Your task to perform on an android device: Do I have any events today? Image 0: 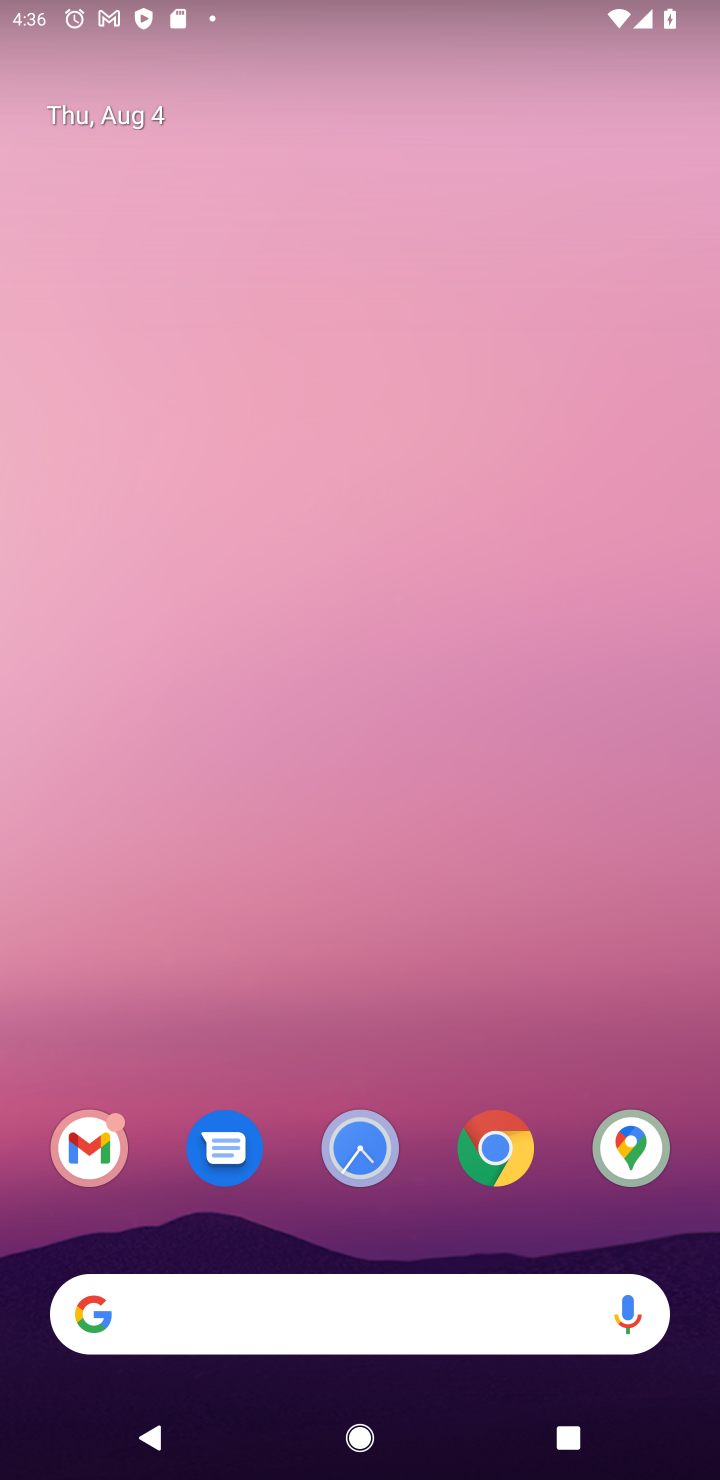
Step 0: drag from (563, 1214) to (547, 270)
Your task to perform on an android device: Do I have any events today? Image 1: 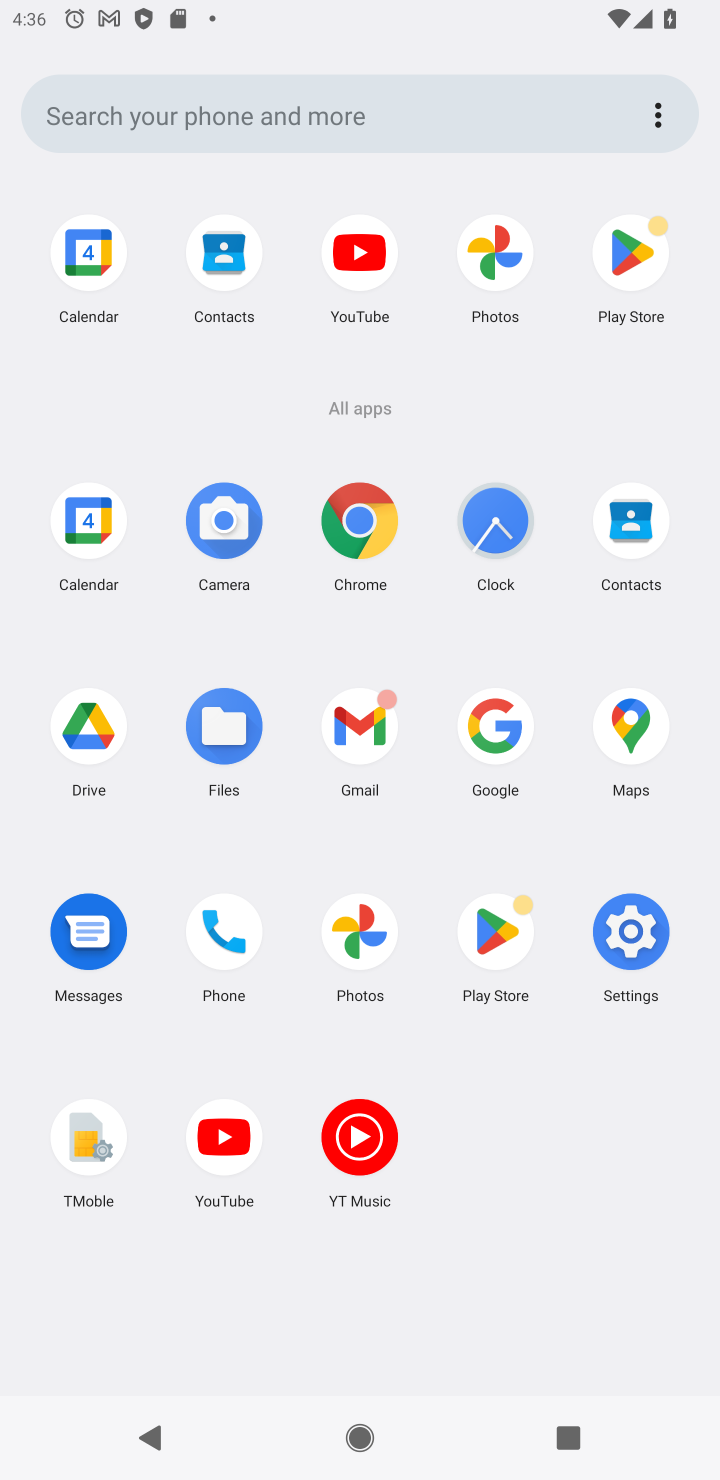
Step 1: click (86, 516)
Your task to perform on an android device: Do I have any events today? Image 2: 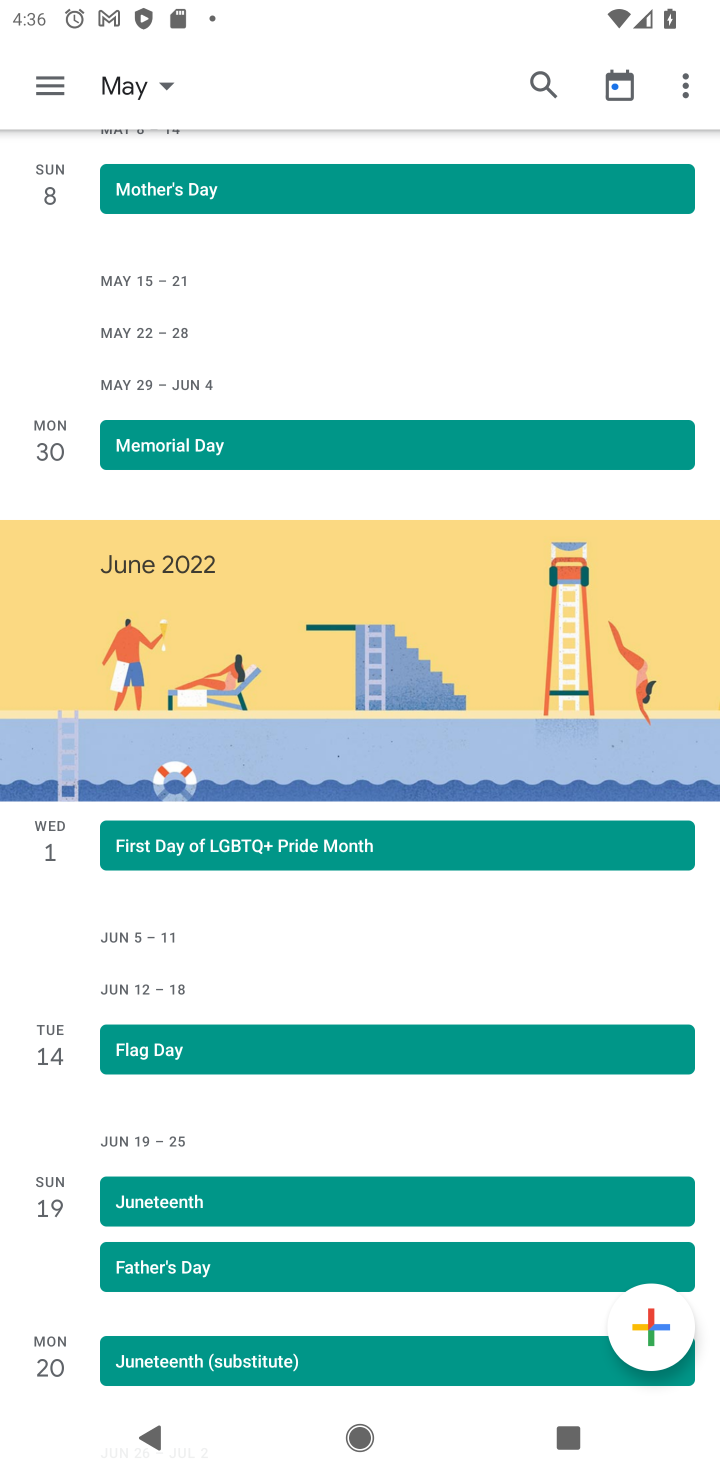
Step 2: click (48, 90)
Your task to perform on an android device: Do I have any events today? Image 3: 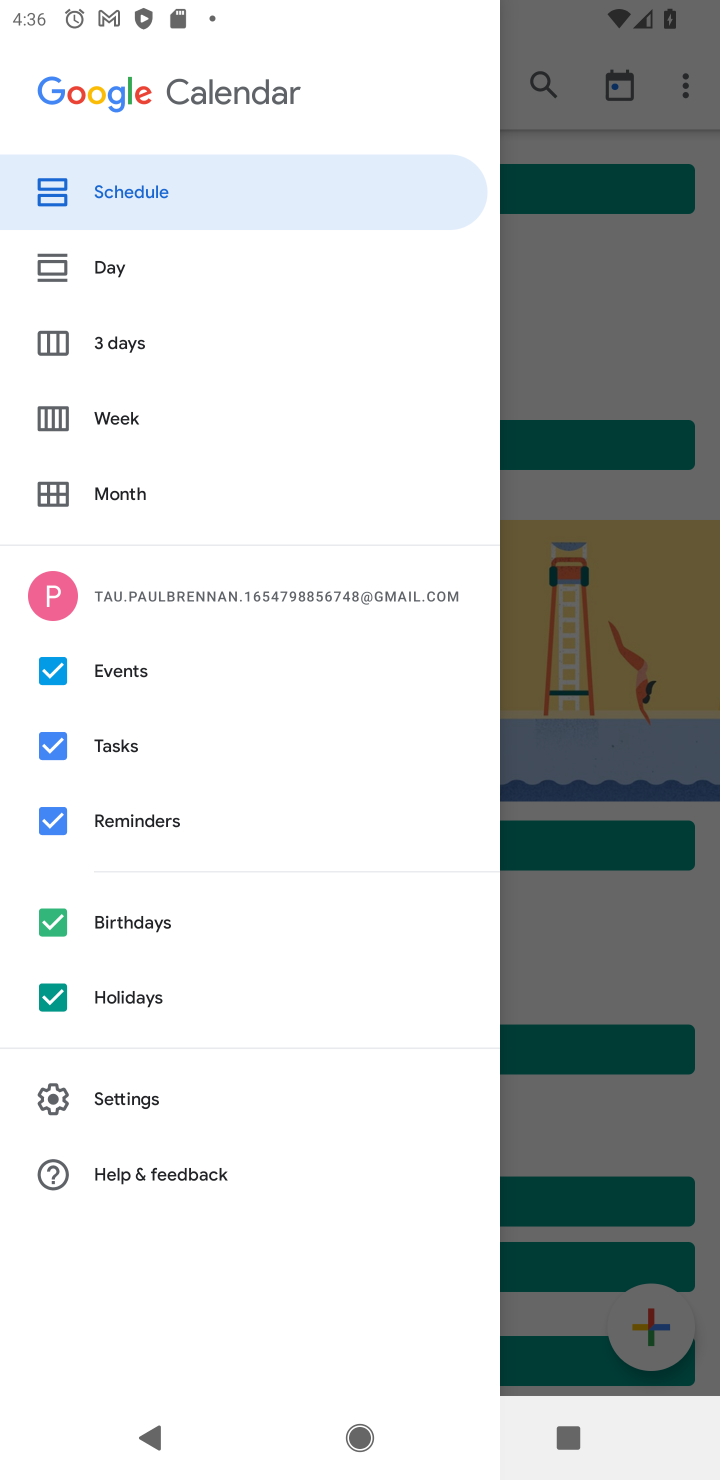
Step 3: click (104, 260)
Your task to perform on an android device: Do I have any events today? Image 4: 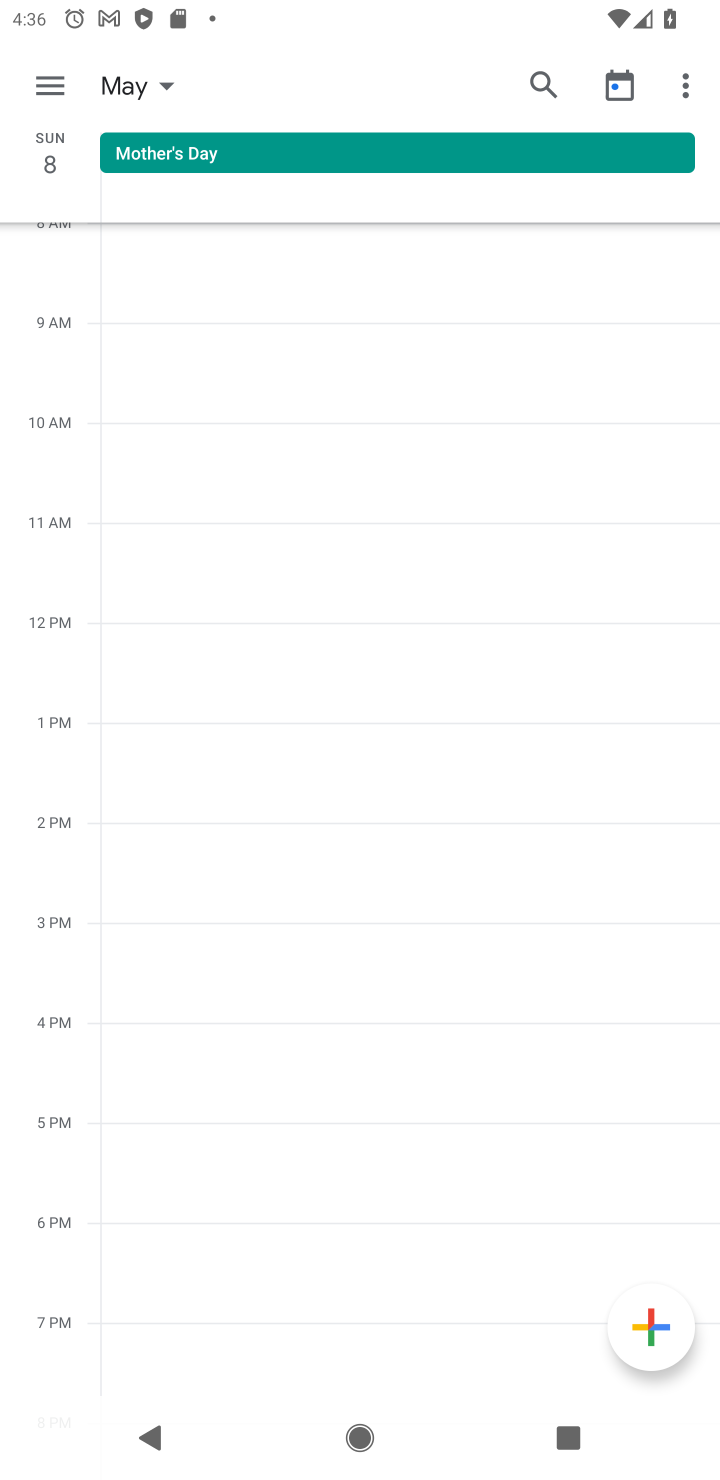
Step 4: click (169, 87)
Your task to perform on an android device: Do I have any events today? Image 5: 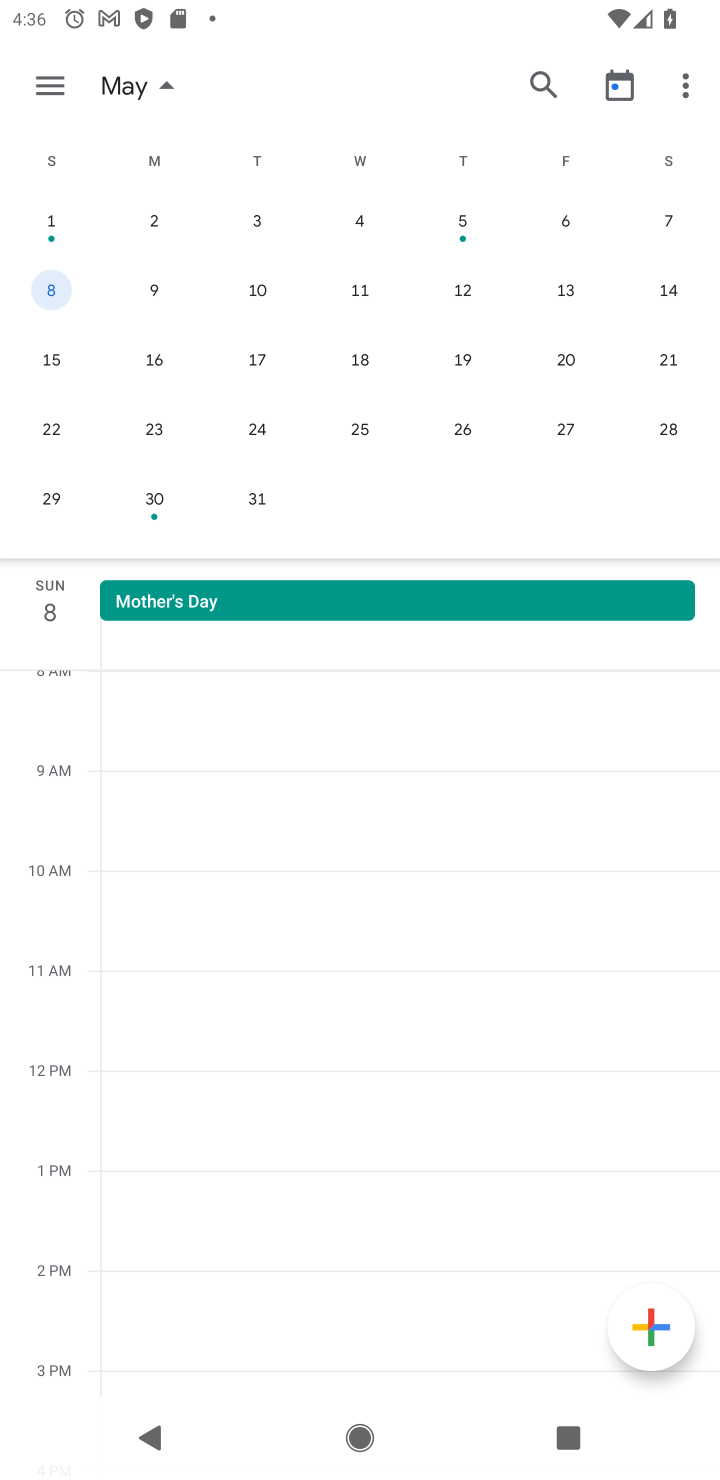
Step 5: drag from (671, 362) to (7, 328)
Your task to perform on an android device: Do I have any events today? Image 6: 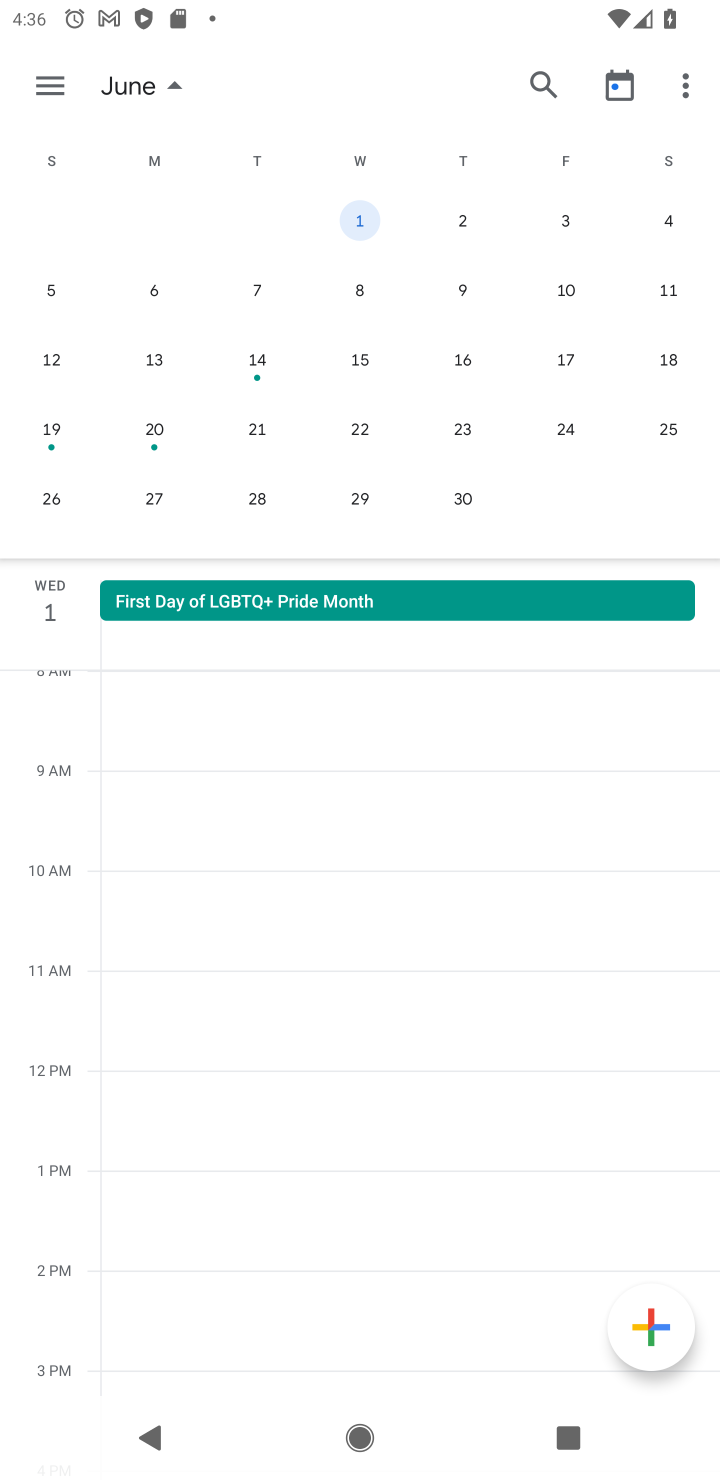
Step 6: drag from (675, 374) to (5, 362)
Your task to perform on an android device: Do I have any events today? Image 7: 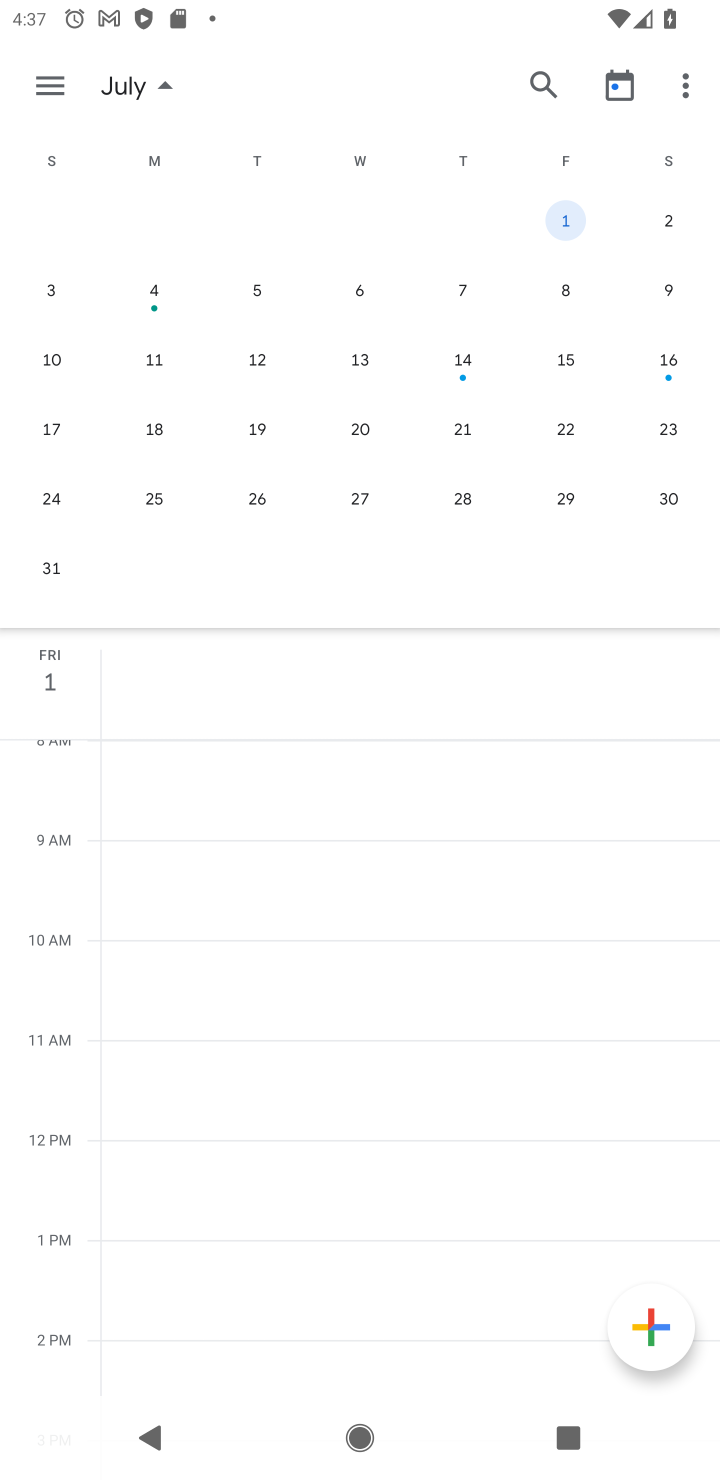
Step 7: drag from (680, 383) to (71, 312)
Your task to perform on an android device: Do I have any events today? Image 8: 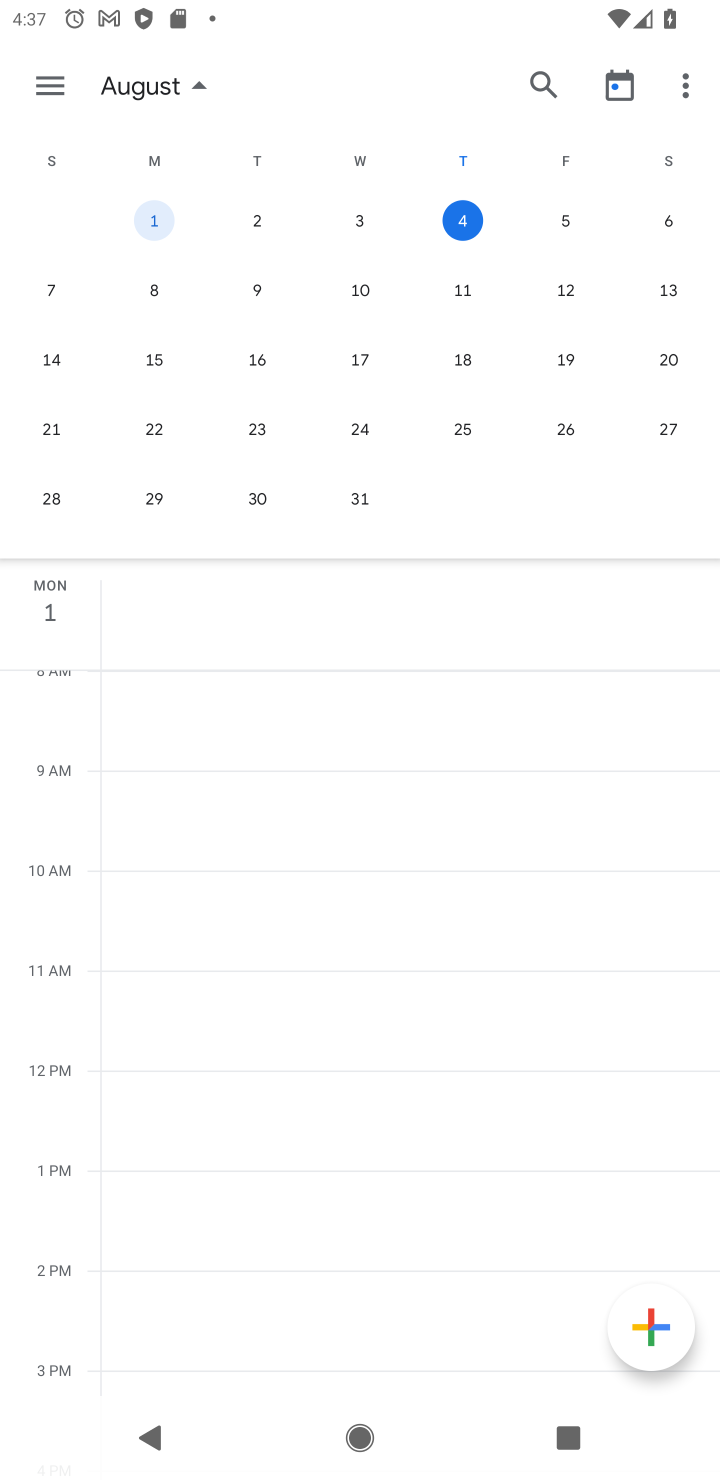
Step 8: click (457, 226)
Your task to perform on an android device: Do I have any events today? Image 9: 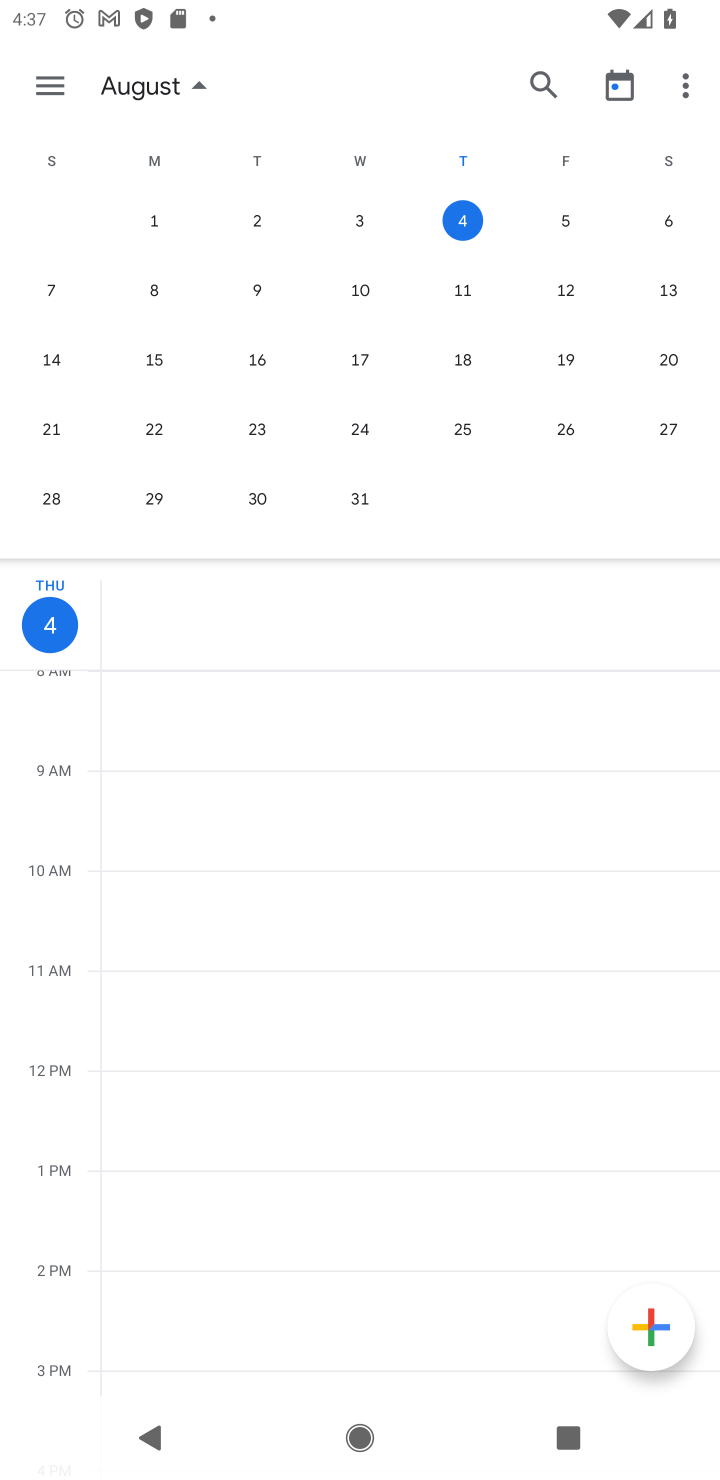
Step 9: task complete